Your task to perform on an android device: Open battery settings Image 0: 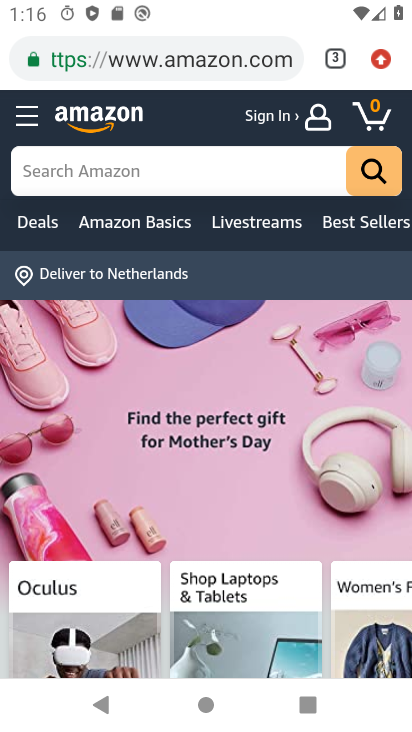
Step 0: press home button
Your task to perform on an android device: Open battery settings Image 1: 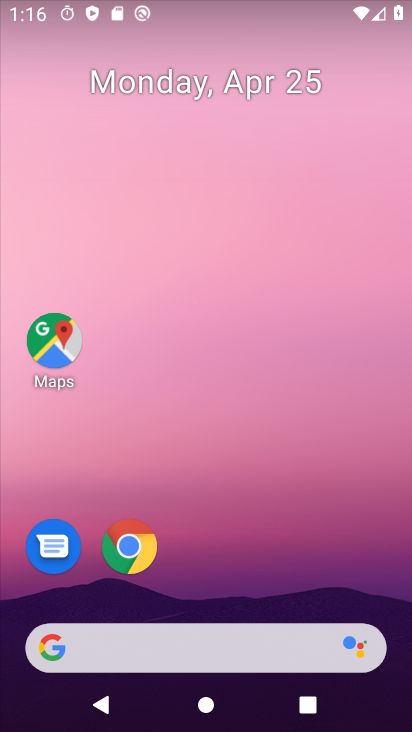
Step 1: drag from (212, 608) to (217, 14)
Your task to perform on an android device: Open battery settings Image 2: 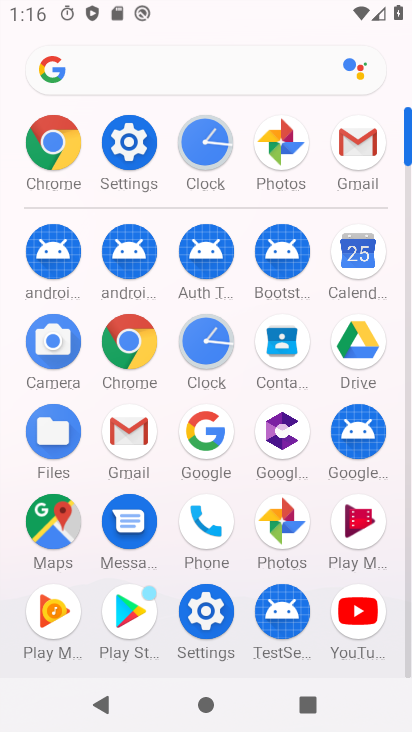
Step 2: click (131, 161)
Your task to perform on an android device: Open battery settings Image 3: 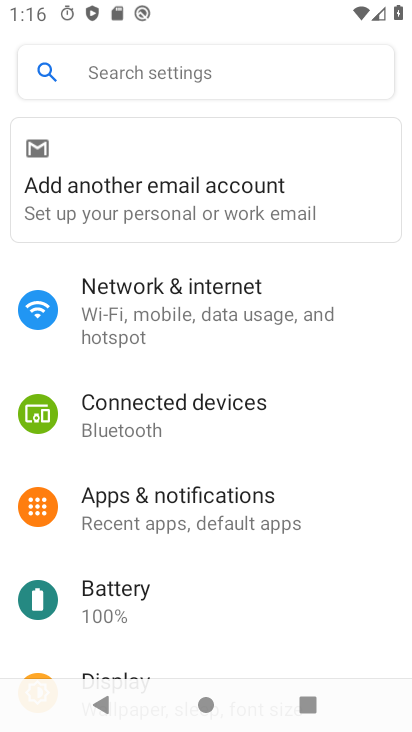
Step 3: click (116, 581)
Your task to perform on an android device: Open battery settings Image 4: 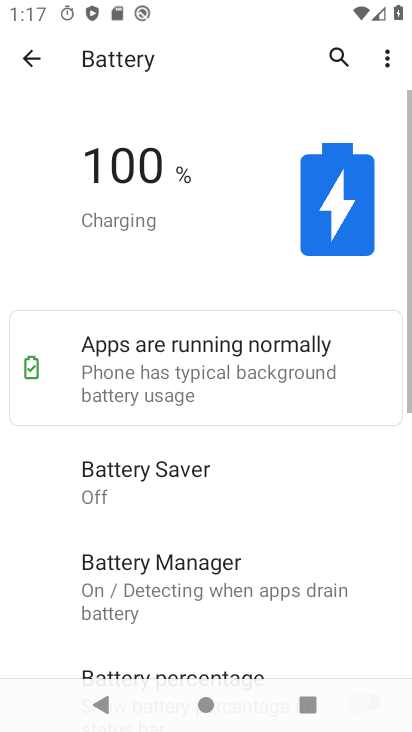
Step 4: task complete